Your task to perform on an android device: Clear the cart on target. Add "macbook air" to the cart on target Image 0: 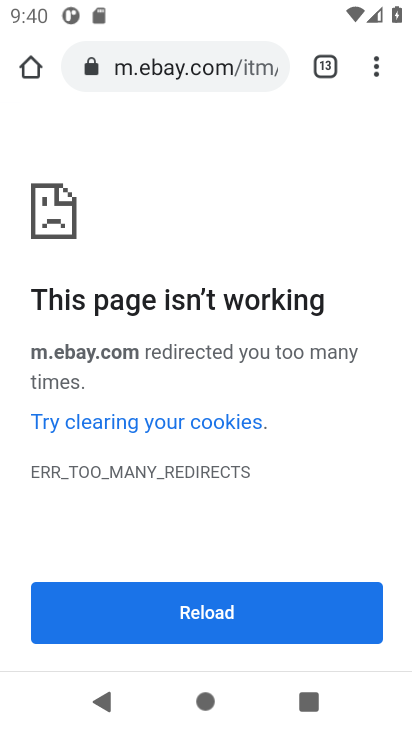
Step 0: press home button
Your task to perform on an android device: Clear the cart on target. Add "macbook air" to the cart on target Image 1: 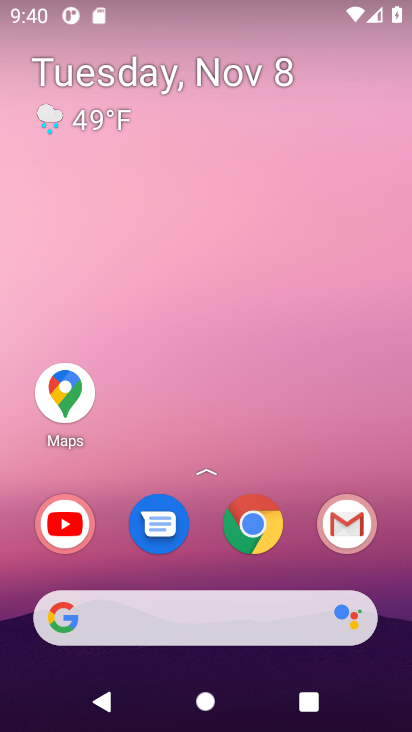
Step 1: click (248, 528)
Your task to perform on an android device: Clear the cart on target. Add "macbook air" to the cart on target Image 2: 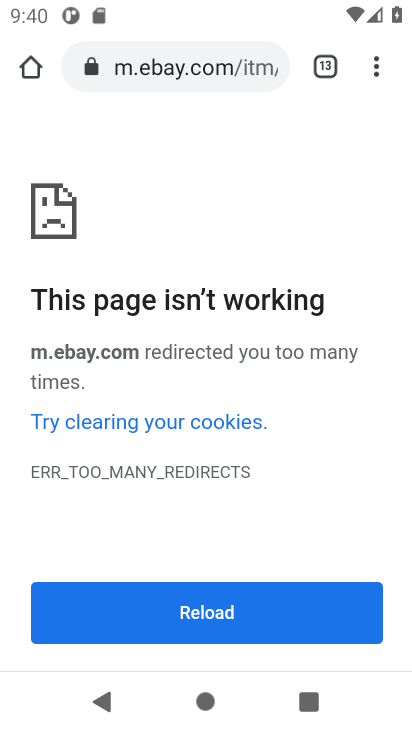
Step 2: click (178, 70)
Your task to perform on an android device: Clear the cart on target. Add "macbook air" to the cart on target Image 3: 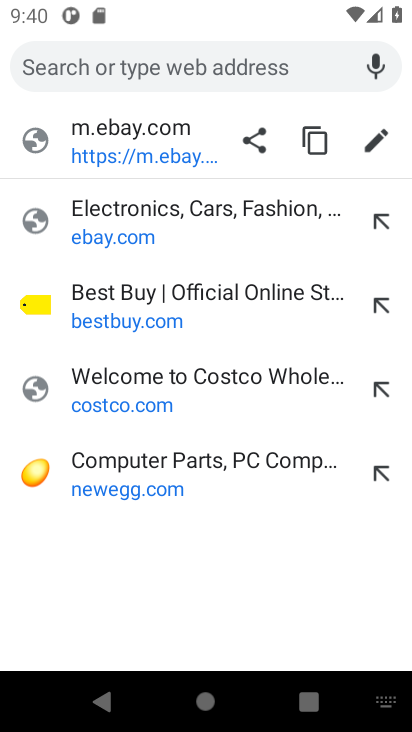
Step 3: type "target.com"
Your task to perform on an android device: Clear the cart on target. Add "macbook air" to the cart on target Image 4: 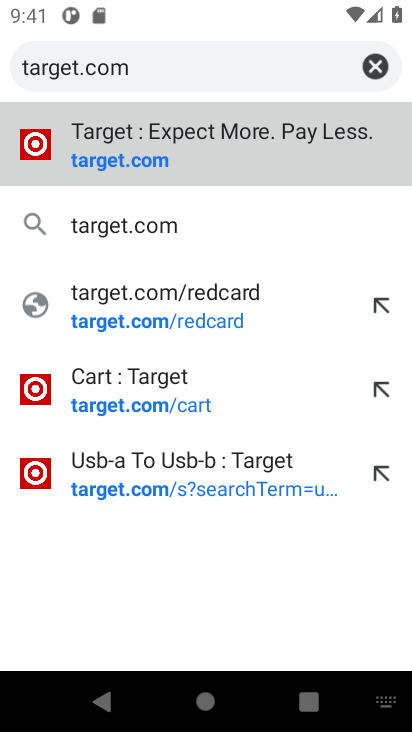
Step 4: click (119, 146)
Your task to perform on an android device: Clear the cart on target. Add "macbook air" to the cart on target Image 5: 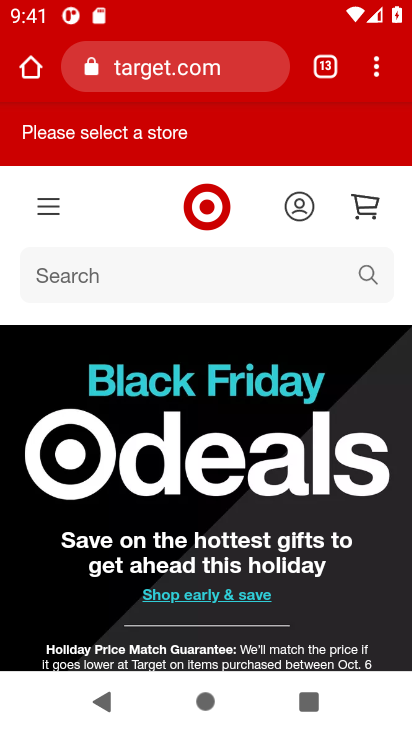
Step 5: click (374, 208)
Your task to perform on an android device: Clear the cart on target. Add "macbook air" to the cart on target Image 6: 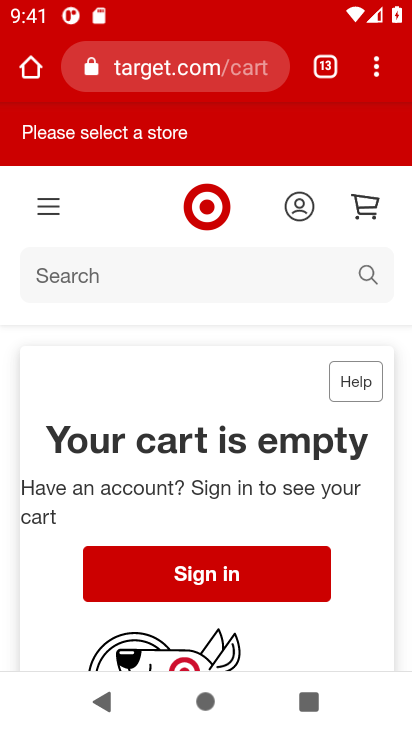
Step 6: click (363, 268)
Your task to perform on an android device: Clear the cart on target. Add "macbook air" to the cart on target Image 7: 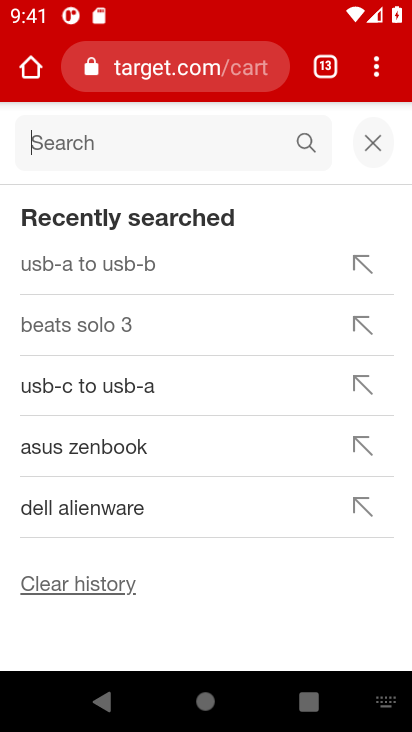
Step 7: type "macbook air"
Your task to perform on an android device: Clear the cart on target. Add "macbook air" to the cart on target Image 8: 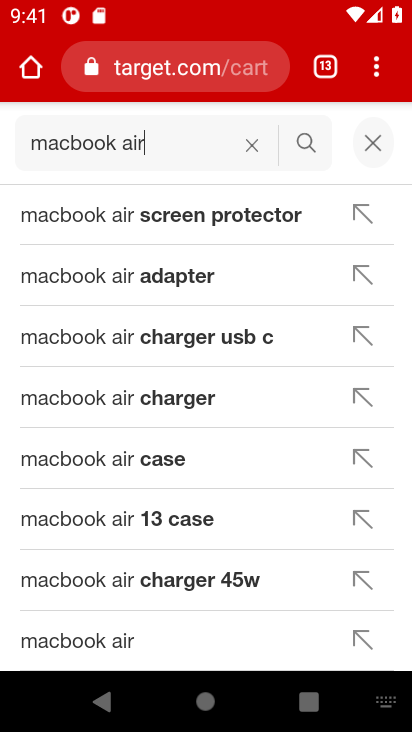
Step 8: click (84, 644)
Your task to perform on an android device: Clear the cart on target. Add "macbook air" to the cart on target Image 9: 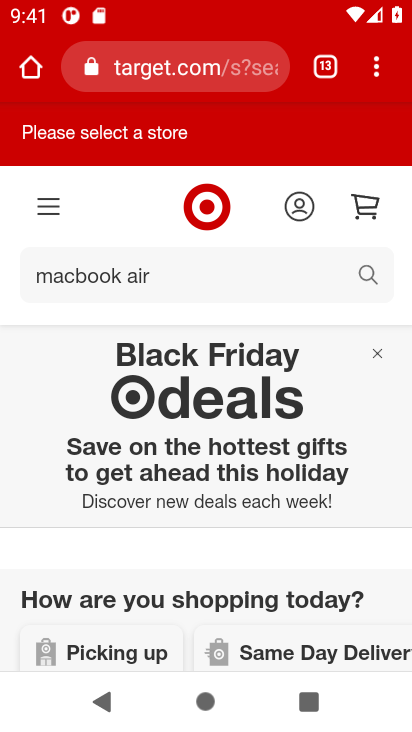
Step 9: task complete